Your task to perform on an android device: change the clock display to analog Image 0: 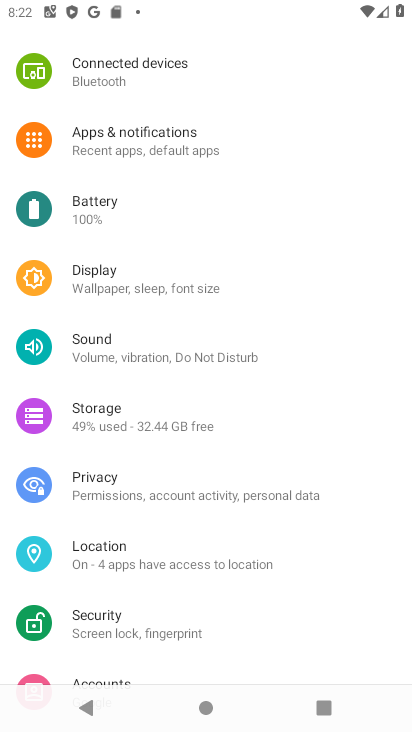
Step 0: press home button
Your task to perform on an android device: change the clock display to analog Image 1: 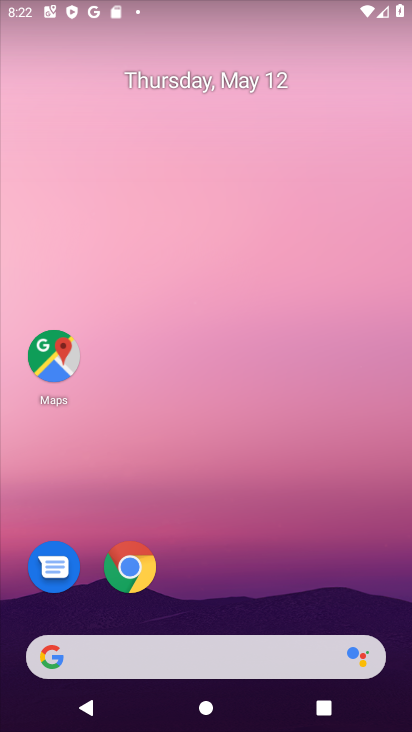
Step 1: drag from (222, 688) to (257, 229)
Your task to perform on an android device: change the clock display to analog Image 2: 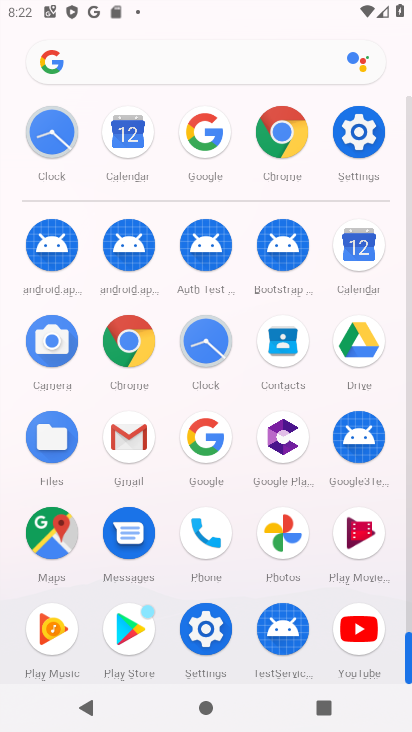
Step 2: click (215, 372)
Your task to perform on an android device: change the clock display to analog Image 3: 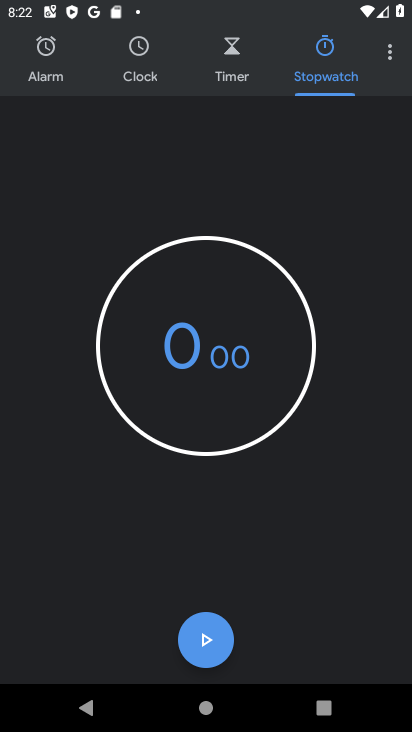
Step 3: click (395, 54)
Your task to perform on an android device: change the clock display to analog Image 4: 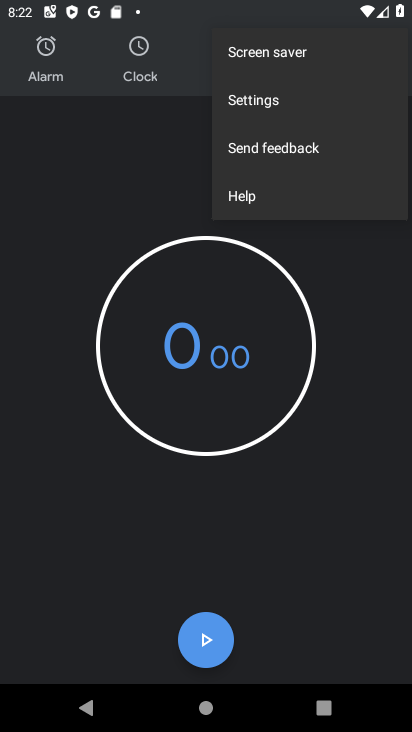
Step 4: click (281, 108)
Your task to perform on an android device: change the clock display to analog Image 5: 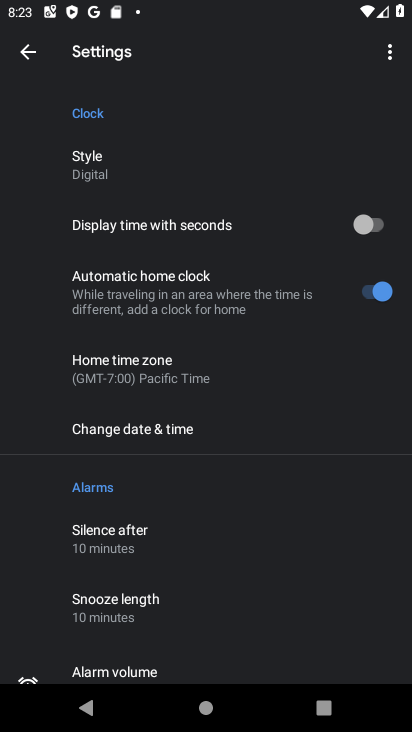
Step 5: click (183, 174)
Your task to perform on an android device: change the clock display to analog Image 6: 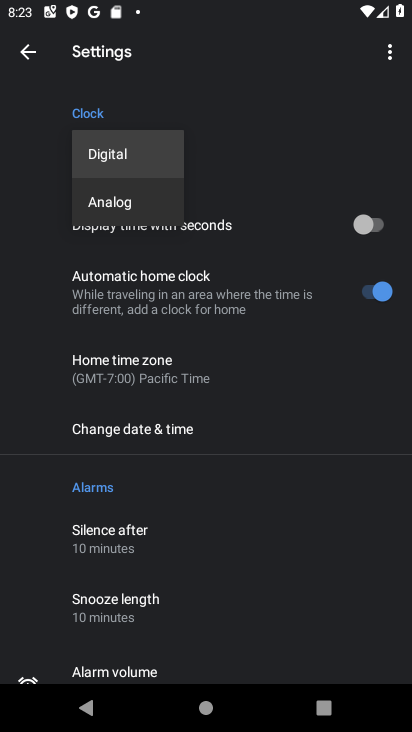
Step 6: click (130, 204)
Your task to perform on an android device: change the clock display to analog Image 7: 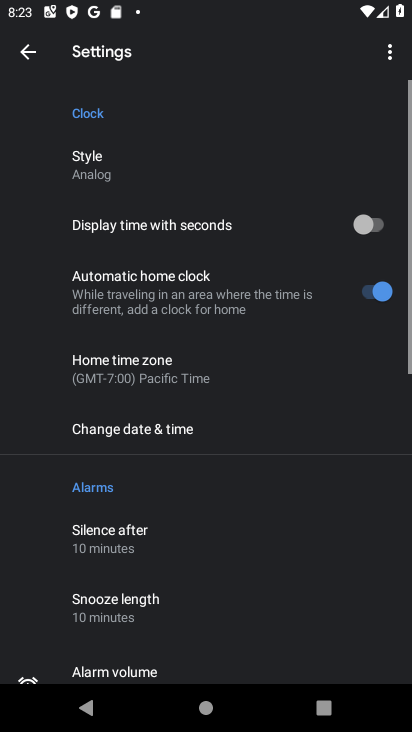
Step 7: task complete